Your task to perform on an android device: Show me popular games on the Play Store Image 0: 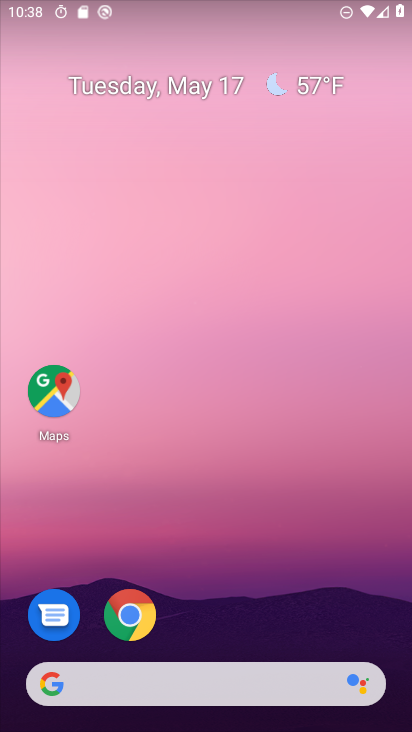
Step 0: drag from (246, 299) to (209, 30)
Your task to perform on an android device: Show me popular games on the Play Store Image 1: 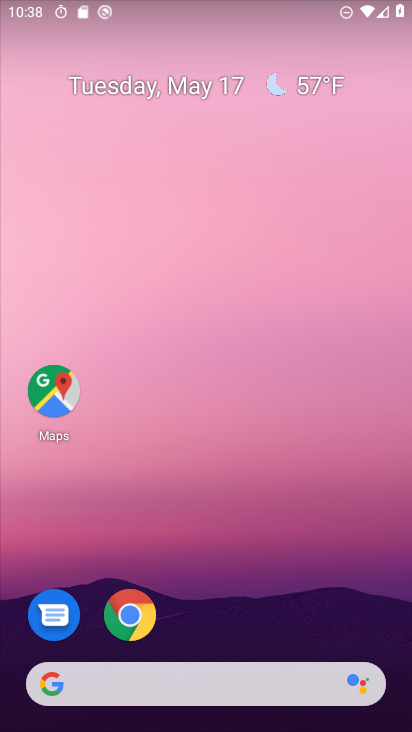
Step 1: drag from (262, 608) to (79, 43)
Your task to perform on an android device: Show me popular games on the Play Store Image 2: 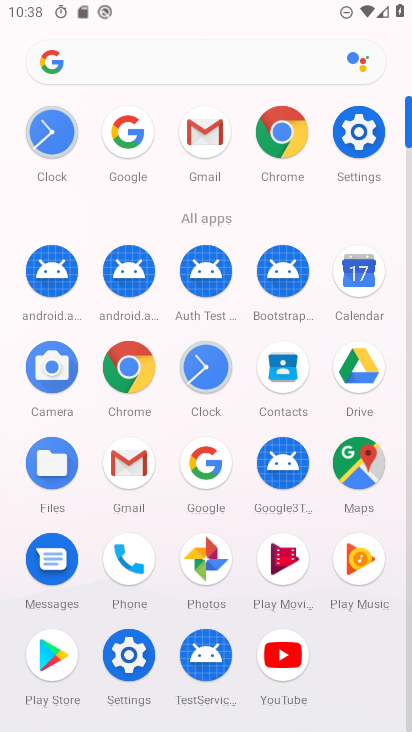
Step 2: click (40, 655)
Your task to perform on an android device: Show me popular games on the Play Store Image 3: 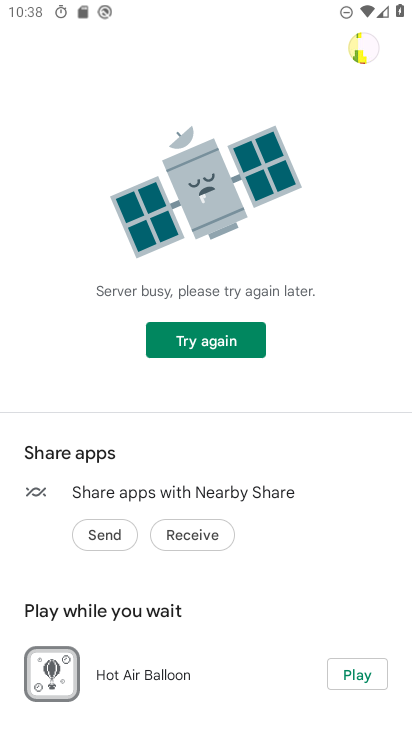
Step 3: click (247, 342)
Your task to perform on an android device: Show me popular games on the Play Store Image 4: 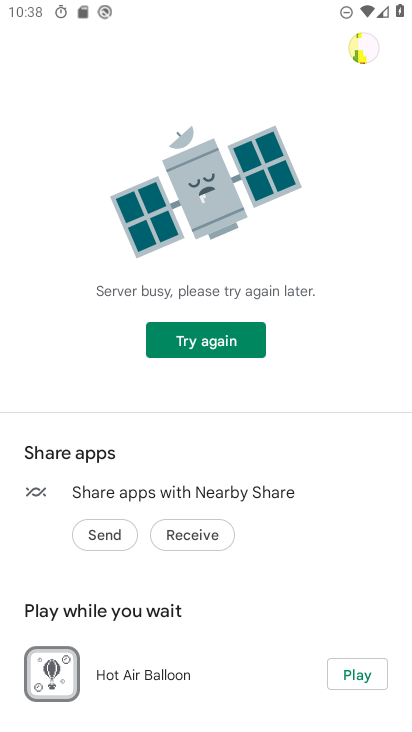
Step 4: click (358, 51)
Your task to perform on an android device: Show me popular games on the Play Store Image 5: 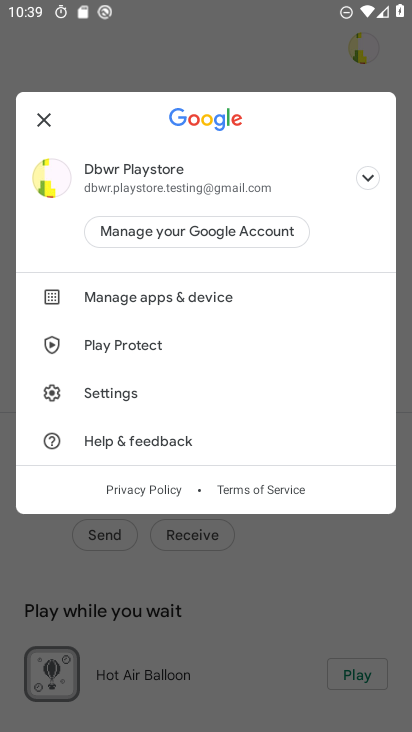
Step 5: click (39, 123)
Your task to perform on an android device: Show me popular games on the Play Store Image 6: 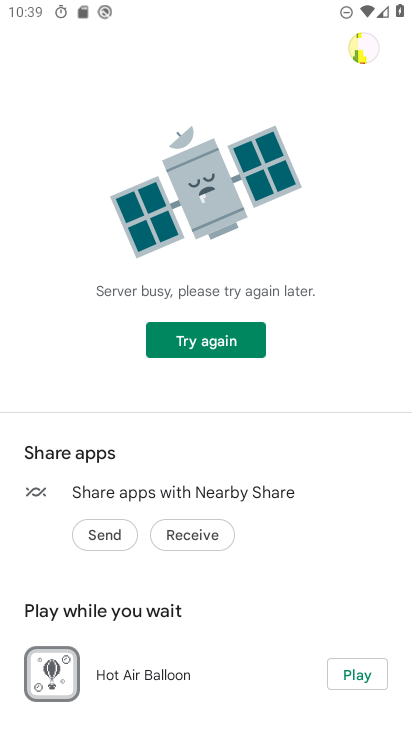
Step 6: click (222, 342)
Your task to perform on an android device: Show me popular games on the Play Store Image 7: 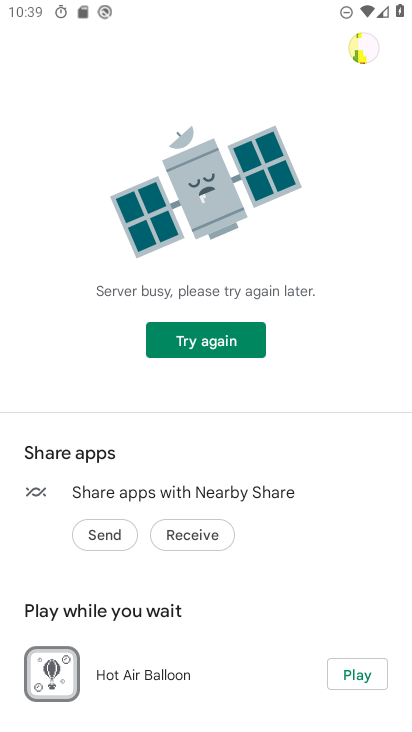
Step 7: click (222, 342)
Your task to perform on an android device: Show me popular games on the Play Store Image 8: 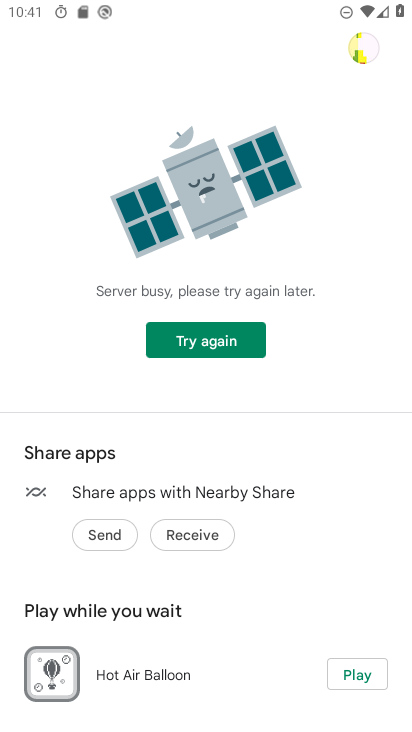
Step 8: task complete